Your task to perform on an android device: Add logitech g pro to the cart on walmart.com Image 0: 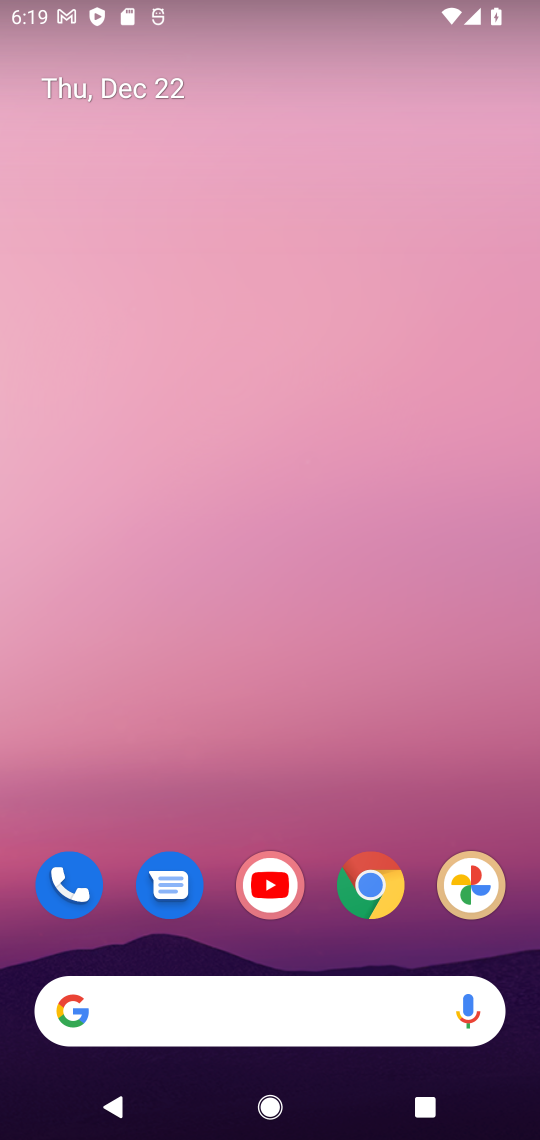
Step 0: click (368, 898)
Your task to perform on an android device: Add logitech g pro to the cart on walmart.com Image 1: 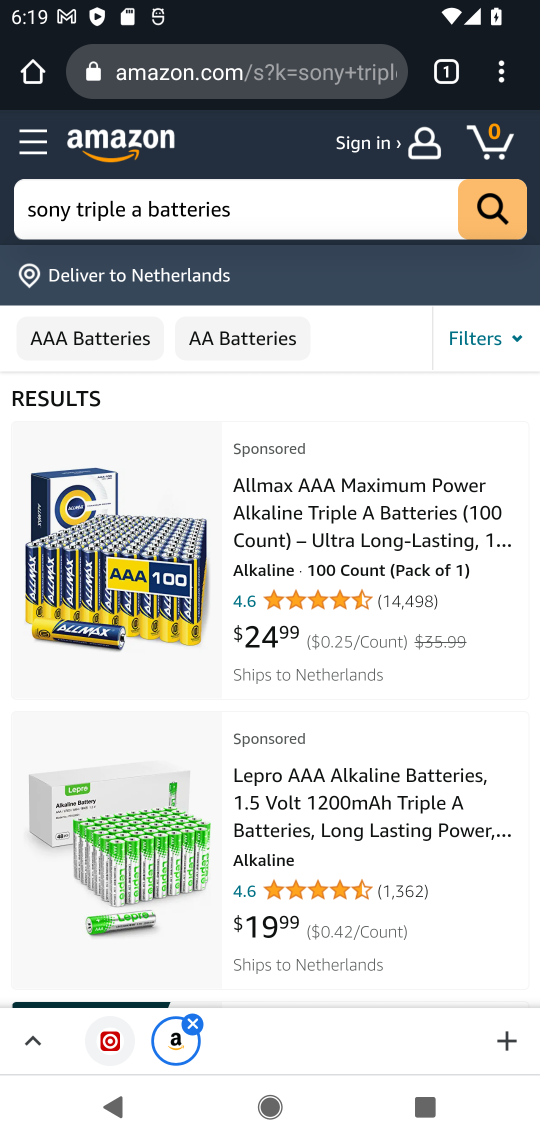
Step 1: click (166, 87)
Your task to perform on an android device: Add logitech g pro to the cart on walmart.com Image 2: 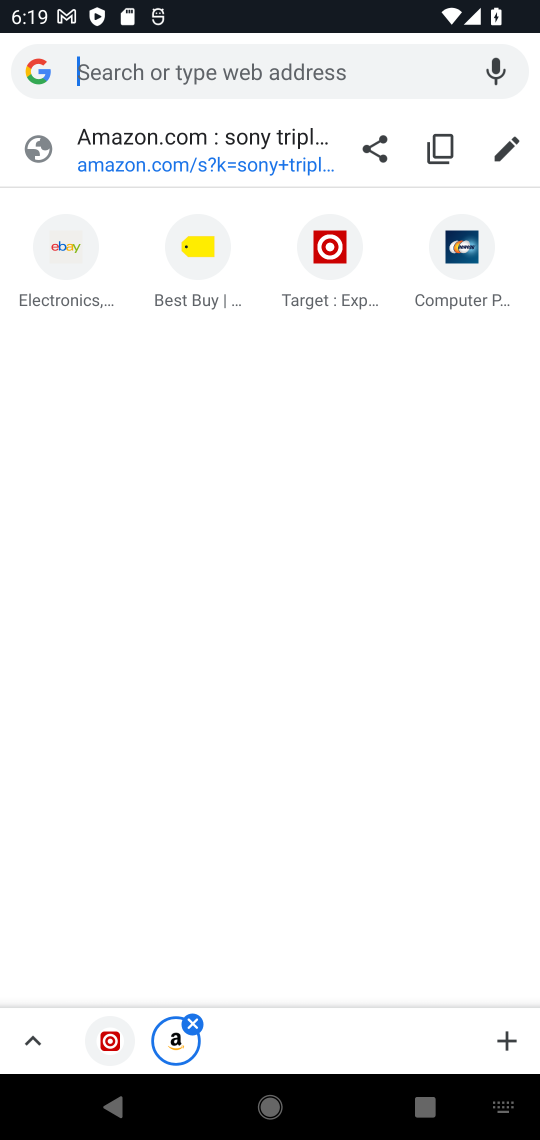
Step 2: type "walmart.com"
Your task to perform on an android device: Add logitech g pro to the cart on walmart.com Image 3: 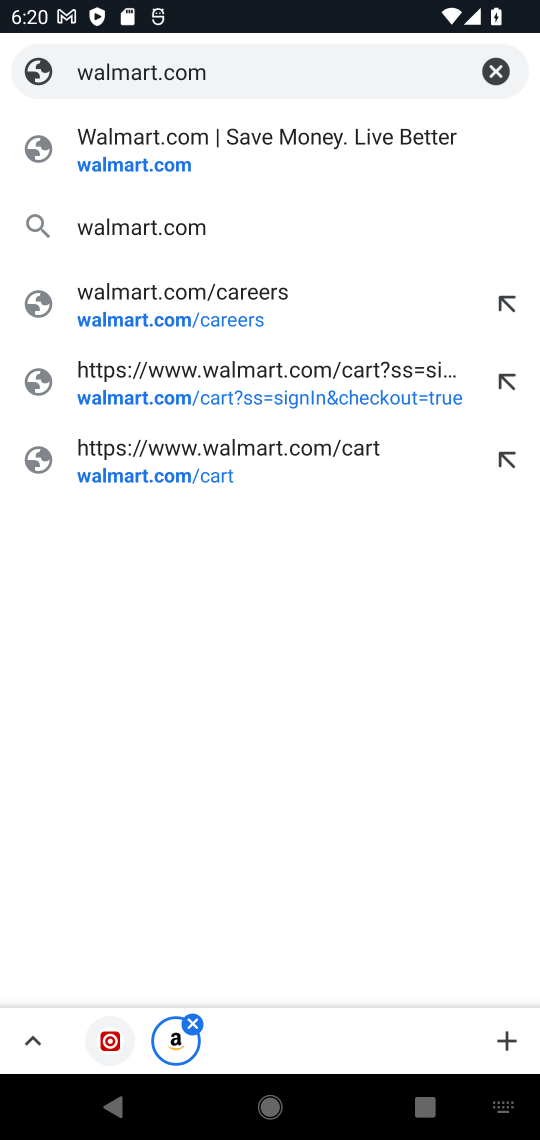
Step 3: click (135, 173)
Your task to perform on an android device: Add logitech g pro to the cart on walmart.com Image 4: 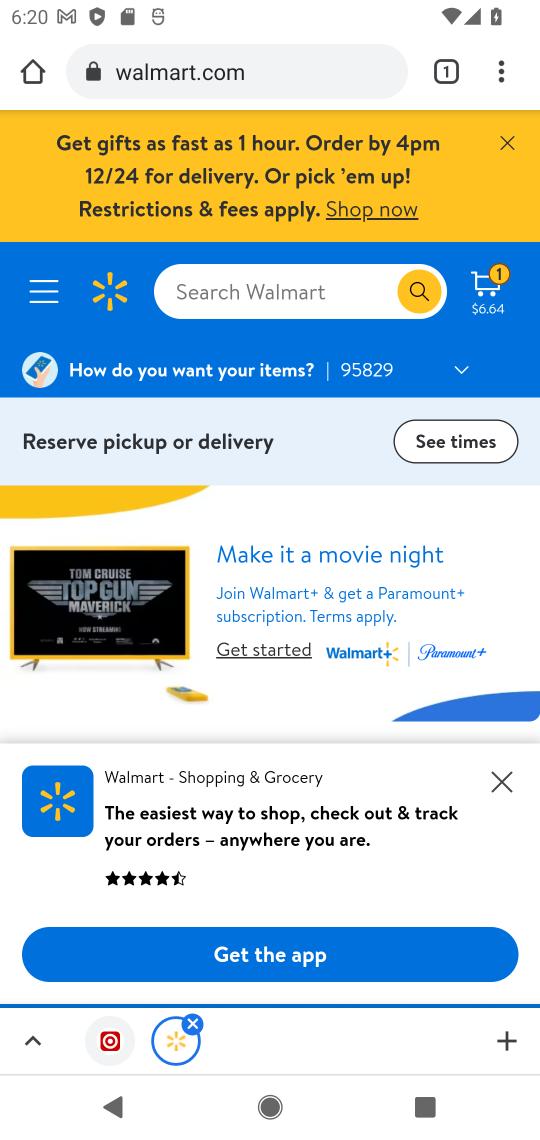
Step 4: click (209, 301)
Your task to perform on an android device: Add logitech g pro to the cart on walmart.com Image 5: 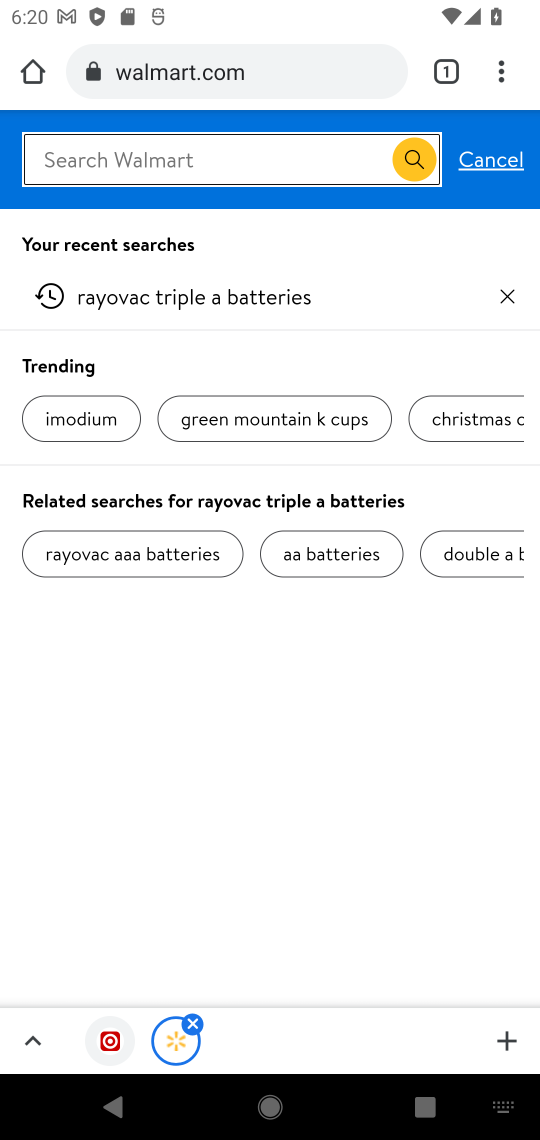
Step 5: type "logitech g pro"
Your task to perform on an android device: Add logitech g pro to the cart on walmart.com Image 6: 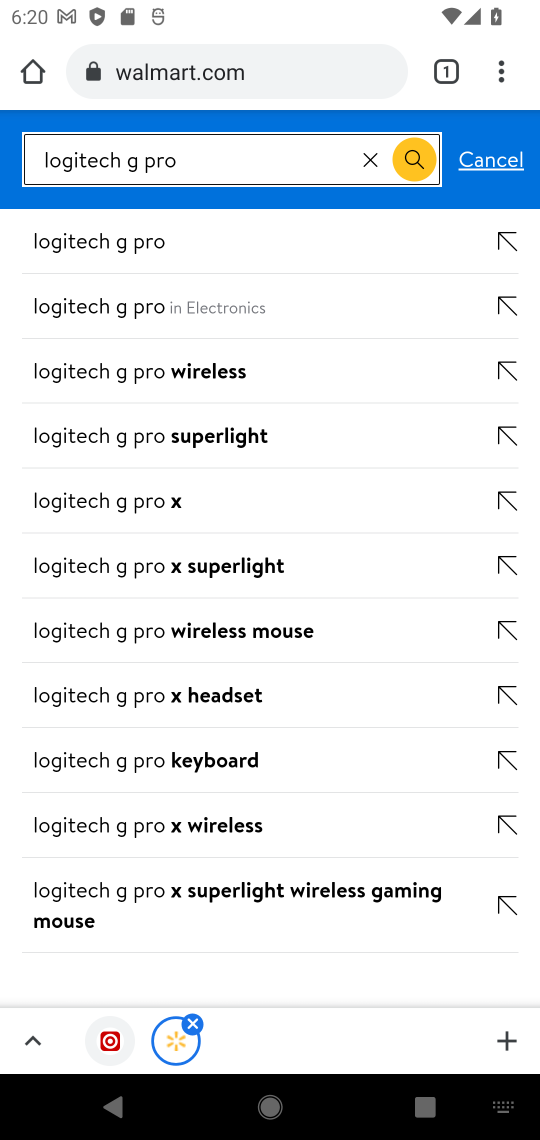
Step 6: click (100, 251)
Your task to perform on an android device: Add logitech g pro to the cart on walmart.com Image 7: 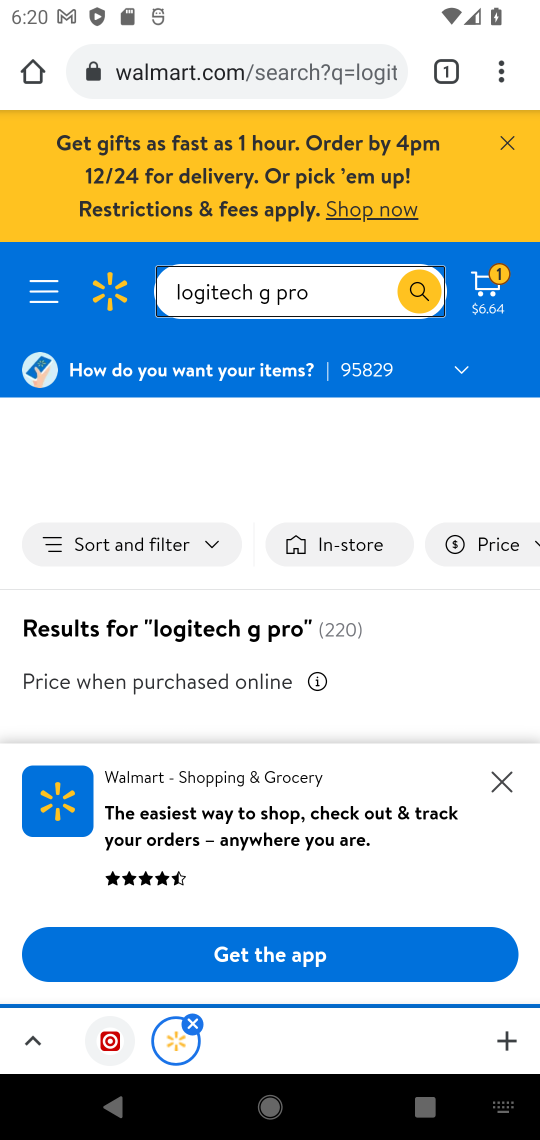
Step 7: drag from (229, 641) to (231, 243)
Your task to perform on an android device: Add logitech g pro to the cart on walmart.com Image 8: 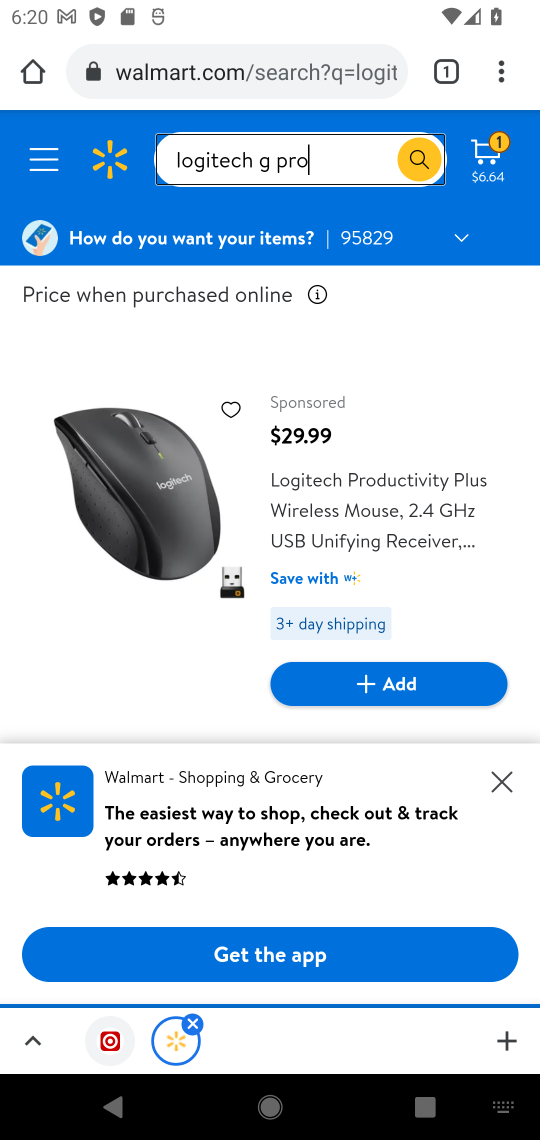
Step 8: drag from (193, 623) to (201, 280)
Your task to perform on an android device: Add logitech g pro to the cart on walmart.com Image 9: 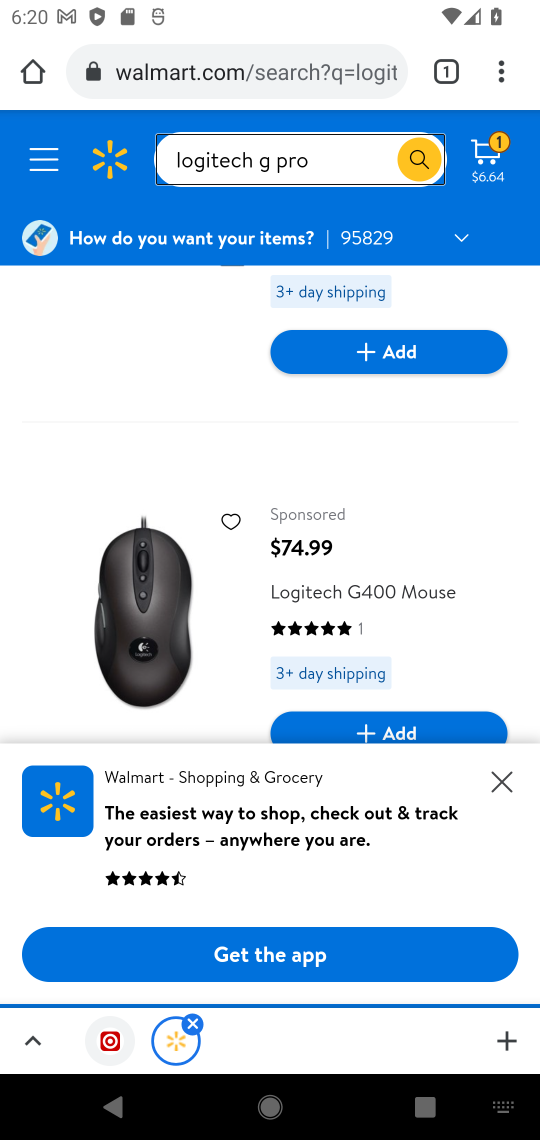
Step 9: drag from (190, 573) to (221, 312)
Your task to perform on an android device: Add logitech g pro to the cart on walmart.com Image 10: 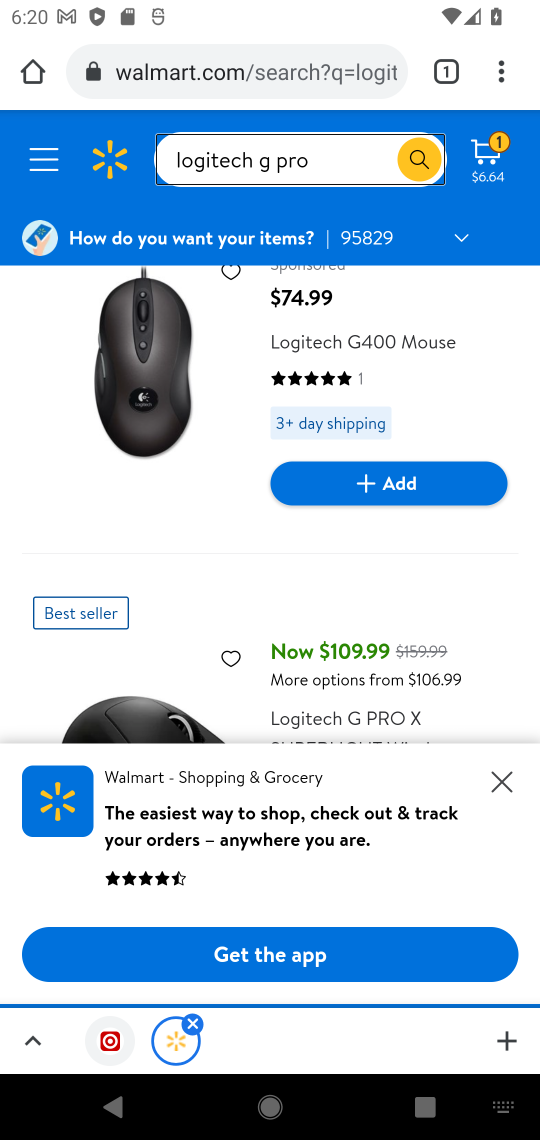
Step 10: drag from (200, 653) to (206, 348)
Your task to perform on an android device: Add logitech g pro to the cart on walmart.com Image 11: 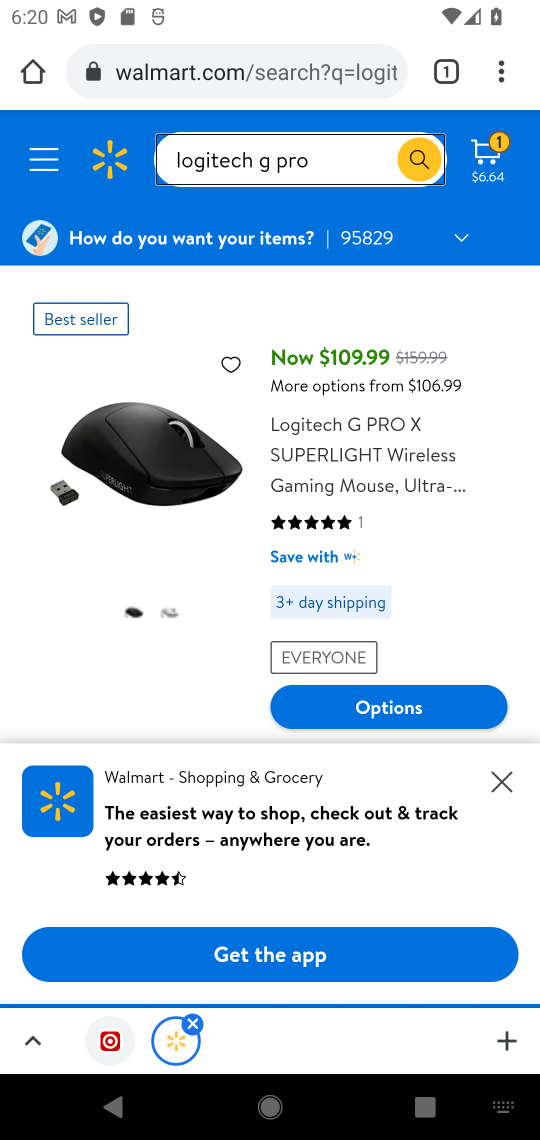
Step 11: click (387, 482)
Your task to perform on an android device: Add logitech g pro to the cart on walmart.com Image 12: 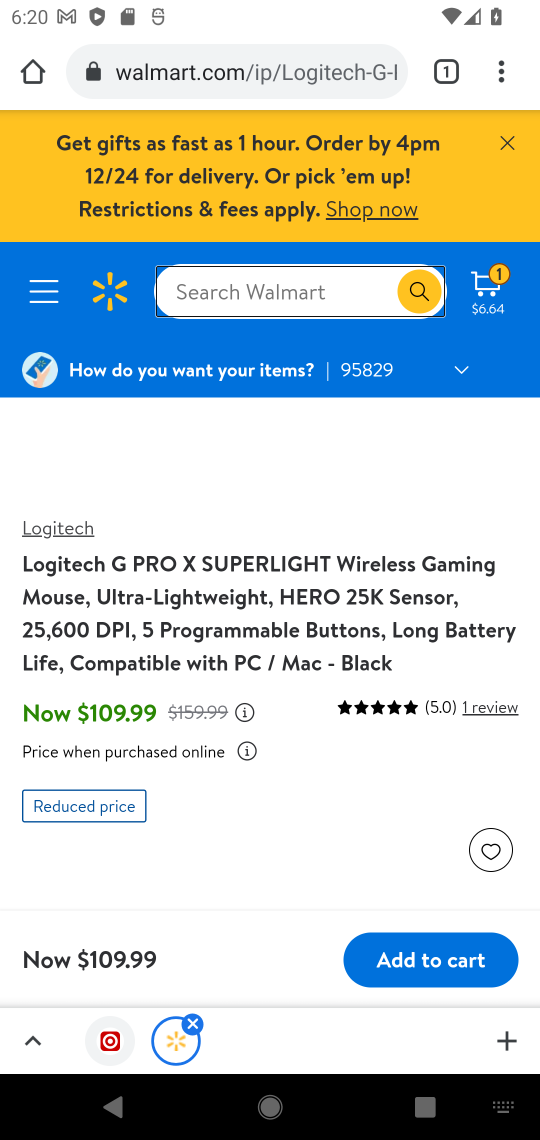
Step 12: drag from (192, 671) to (207, 416)
Your task to perform on an android device: Add logitech g pro to the cart on walmart.com Image 13: 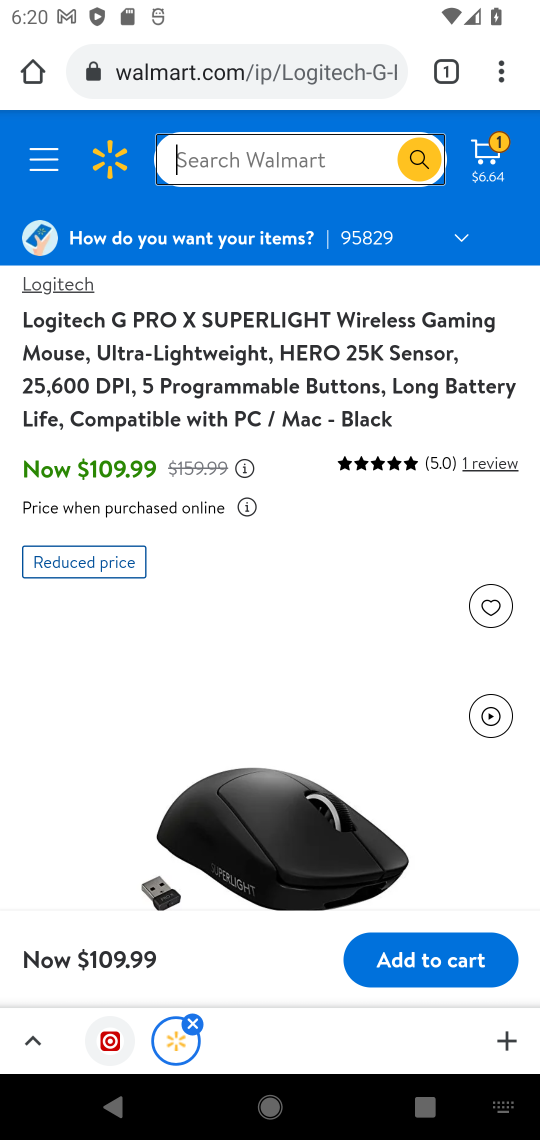
Step 13: click (403, 960)
Your task to perform on an android device: Add logitech g pro to the cart on walmart.com Image 14: 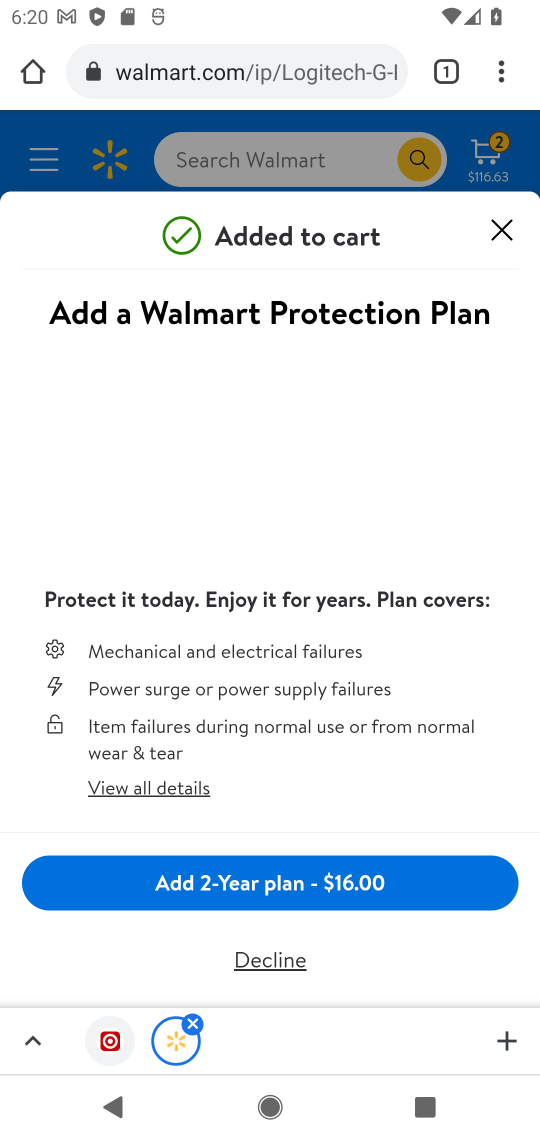
Step 14: task complete